Your task to perform on an android device: Open accessibility settings Image 0: 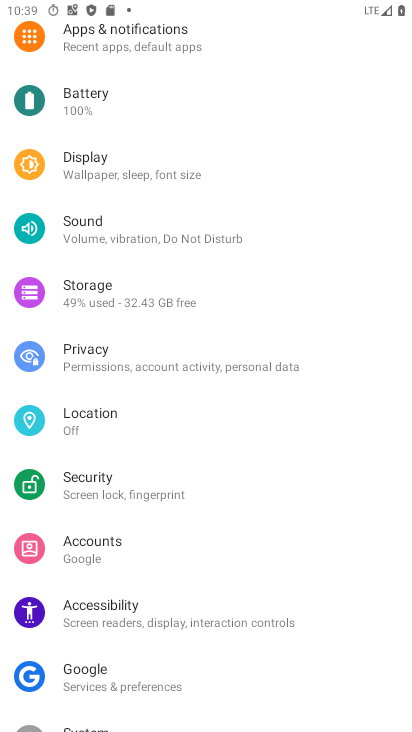
Step 0: click (113, 613)
Your task to perform on an android device: Open accessibility settings Image 1: 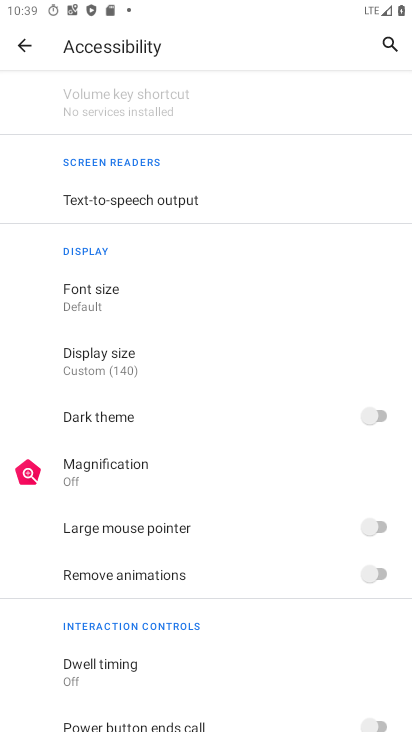
Step 1: task complete